Your task to perform on an android device: allow notifications from all sites in the chrome app Image 0: 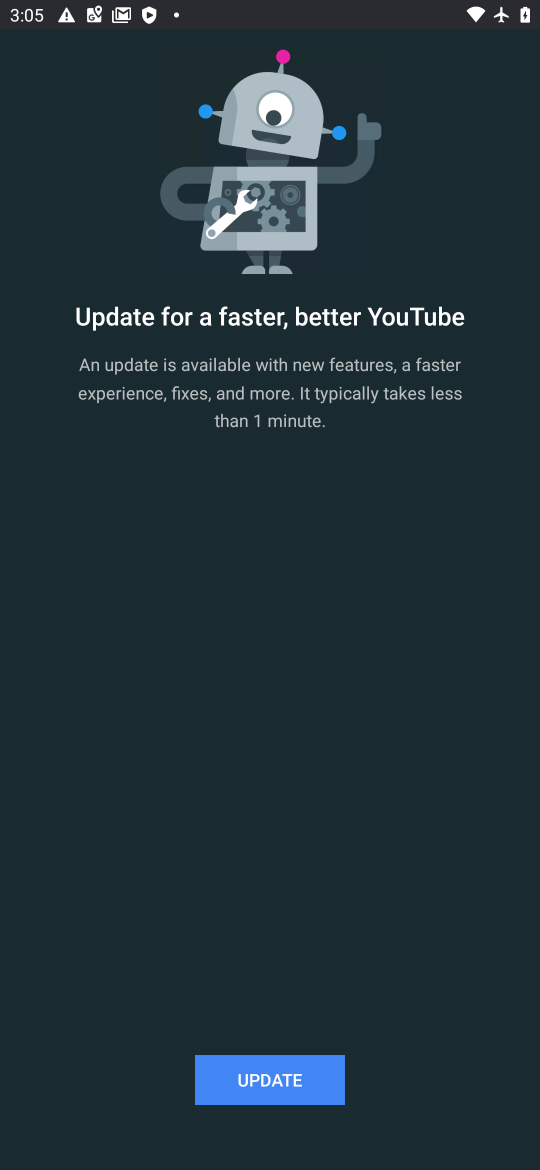
Step 0: press back button
Your task to perform on an android device: allow notifications from all sites in the chrome app Image 1: 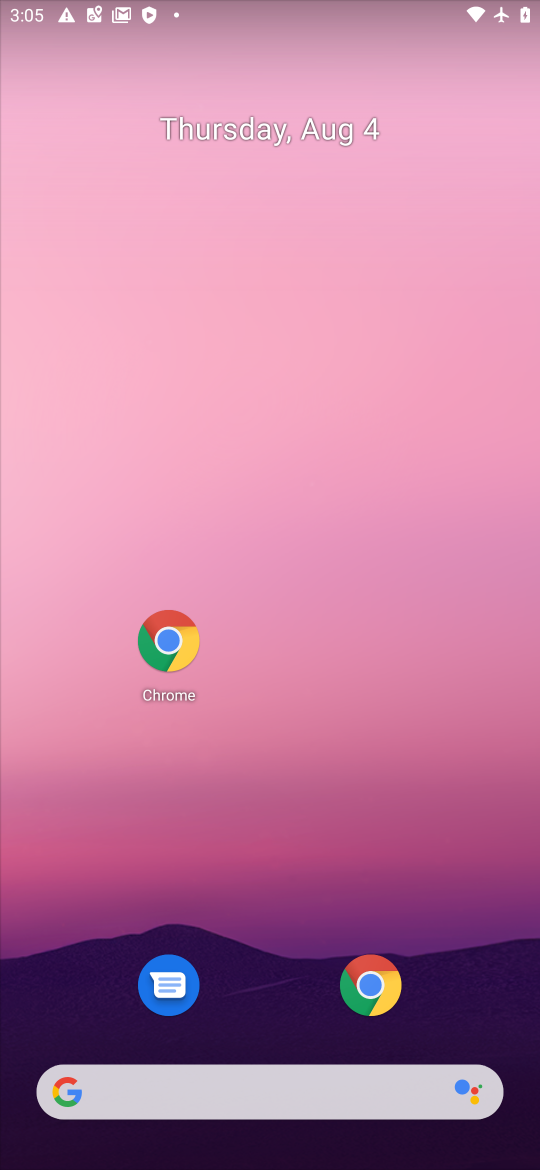
Step 1: drag from (245, 849) to (118, 470)
Your task to perform on an android device: allow notifications from all sites in the chrome app Image 2: 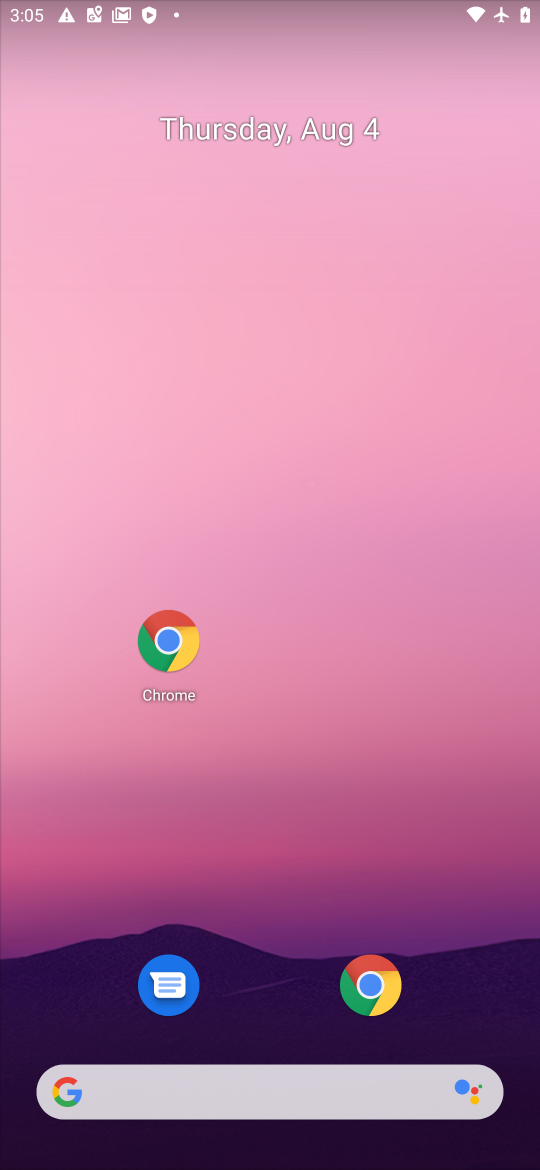
Step 2: drag from (298, 773) to (233, 669)
Your task to perform on an android device: allow notifications from all sites in the chrome app Image 3: 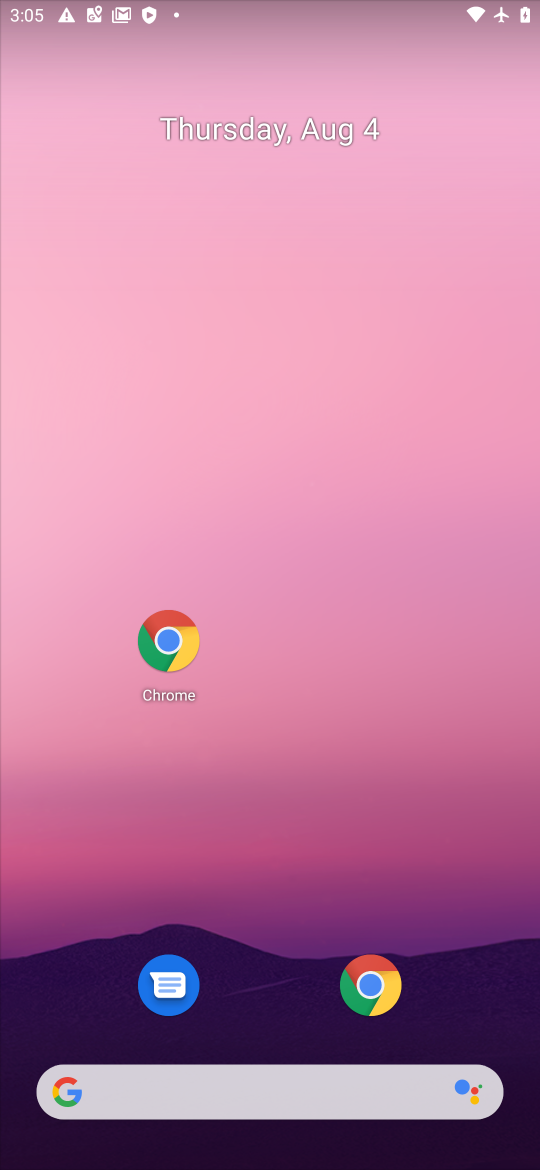
Step 3: drag from (298, 899) to (269, 455)
Your task to perform on an android device: allow notifications from all sites in the chrome app Image 4: 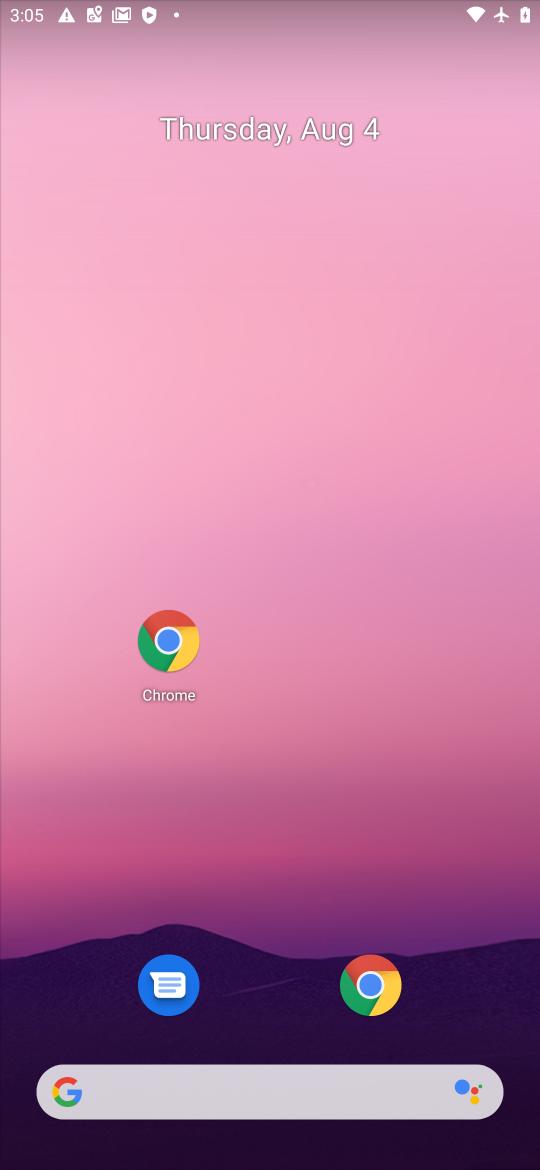
Step 4: drag from (368, 1024) to (159, 423)
Your task to perform on an android device: allow notifications from all sites in the chrome app Image 5: 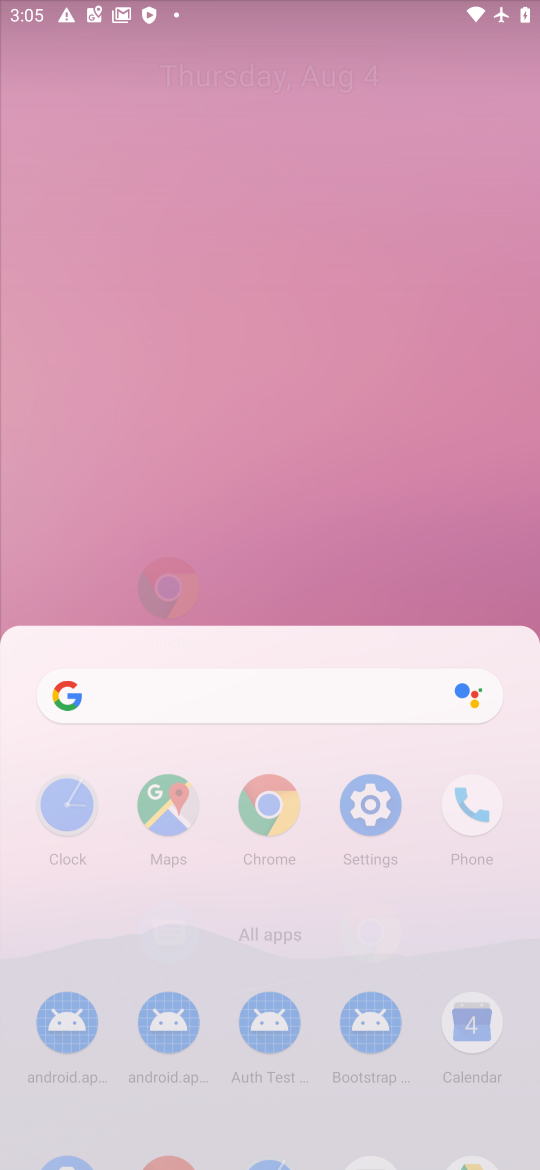
Step 5: drag from (232, 706) to (165, 300)
Your task to perform on an android device: allow notifications from all sites in the chrome app Image 6: 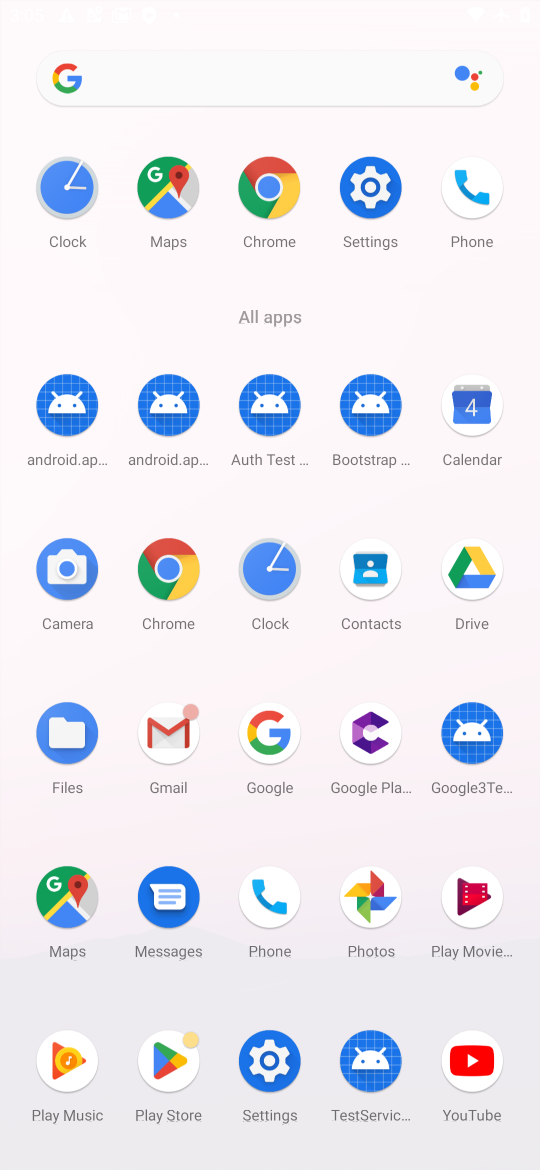
Step 6: drag from (350, 783) to (252, 199)
Your task to perform on an android device: allow notifications from all sites in the chrome app Image 7: 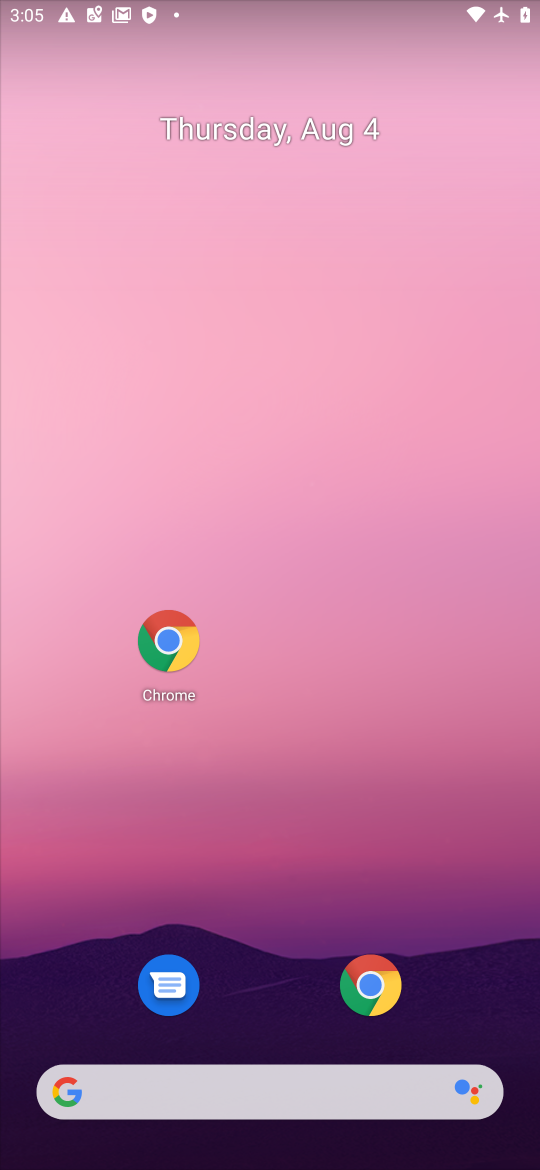
Step 7: click (259, 183)
Your task to perform on an android device: allow notifications from all sites in the chrome app Image 8: 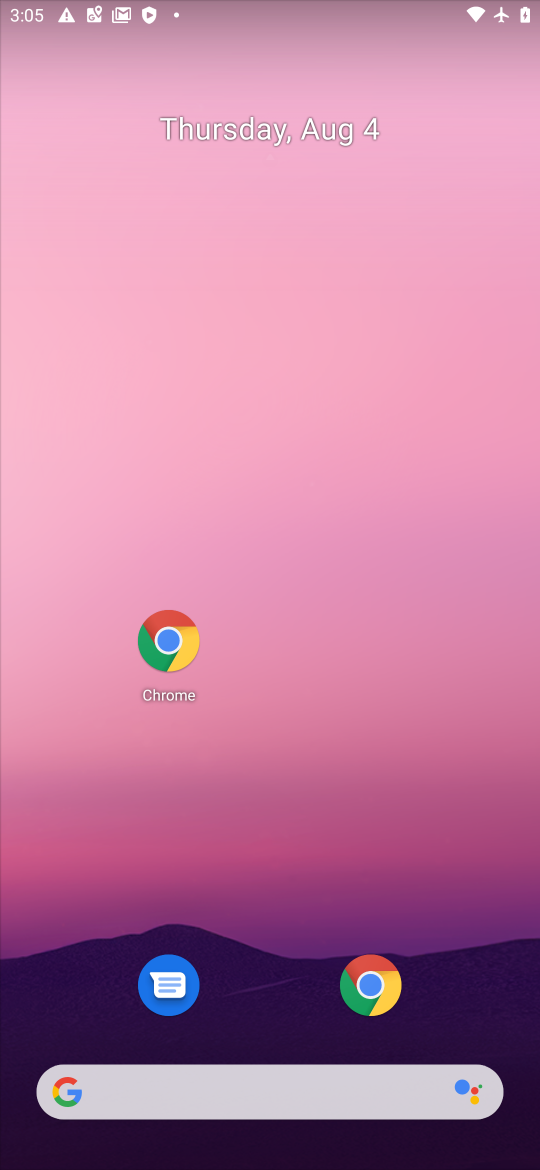
Step 8: drag from (364, 718) to (465, 278)
Your task to perform on an android device: allow notifications from all sites in the chrome app Image 9: 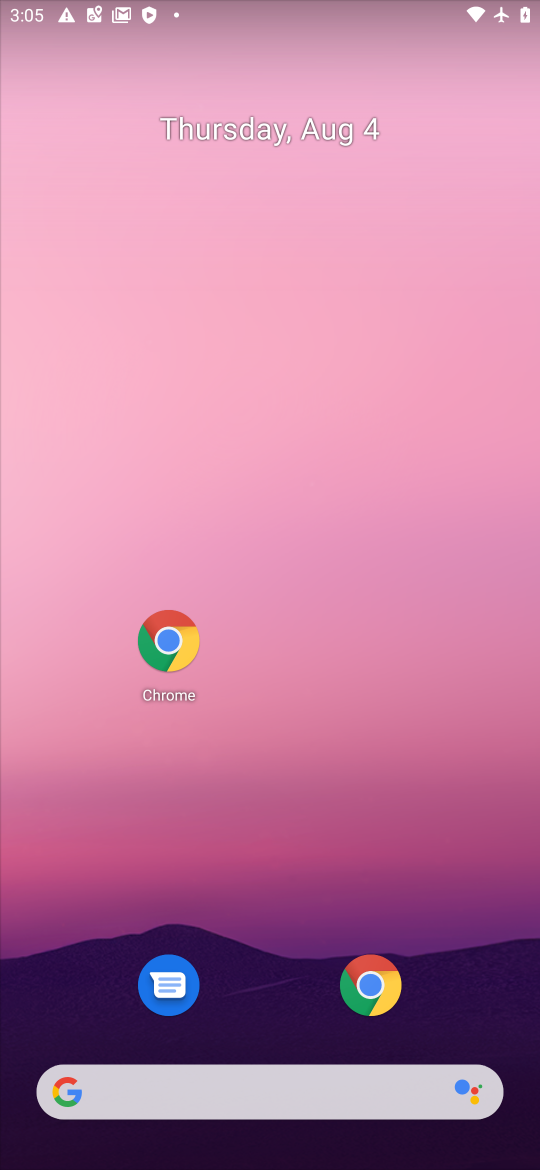
Step 9: drag from (204, 449) to (155, 289)
Your task to perform on an android device: allow notifications from all sites in the chrome app Image 10: 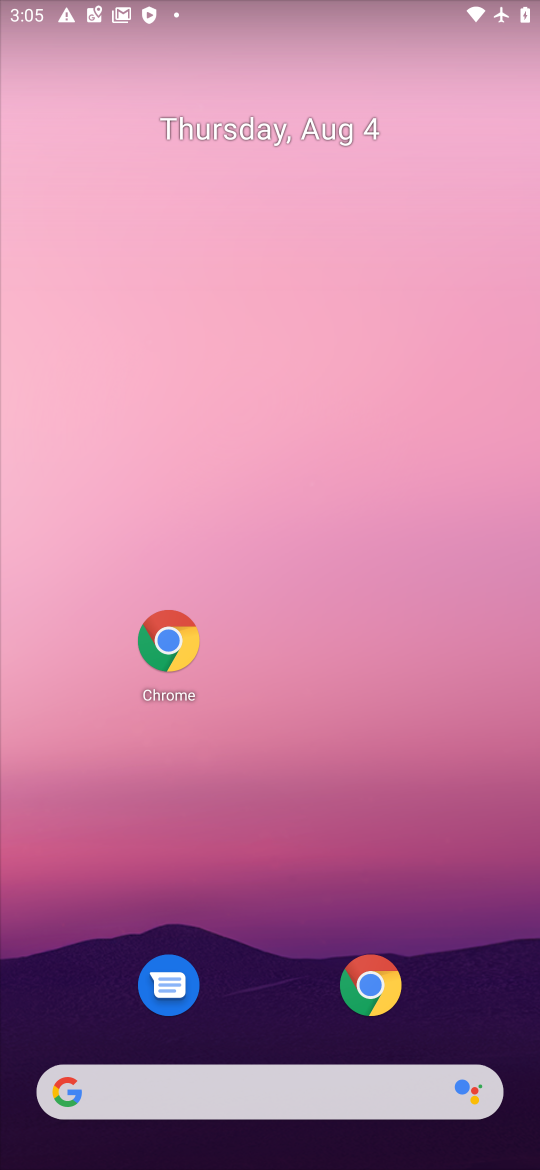
Step 10: drag from (263, 961) to (150, 495)
Your task to perform on an android device: allow notifications from all sites in the chrome app Image 11: 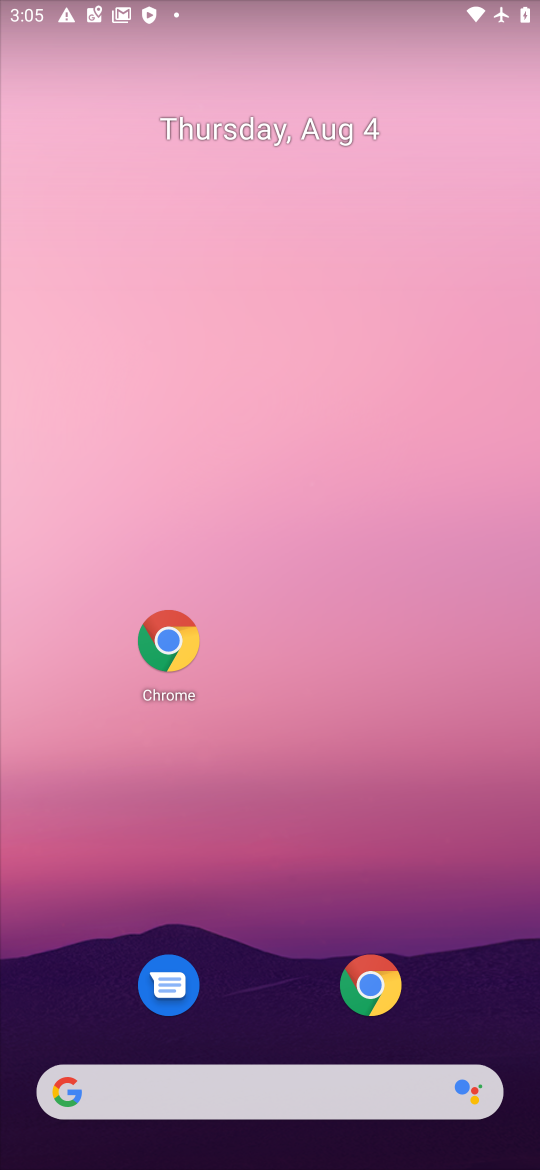
Step 11: drag from (295, 1101) to (191, 527)
Your task to perform on an android device: allow notifications from all sites in the chrome app Image 12: 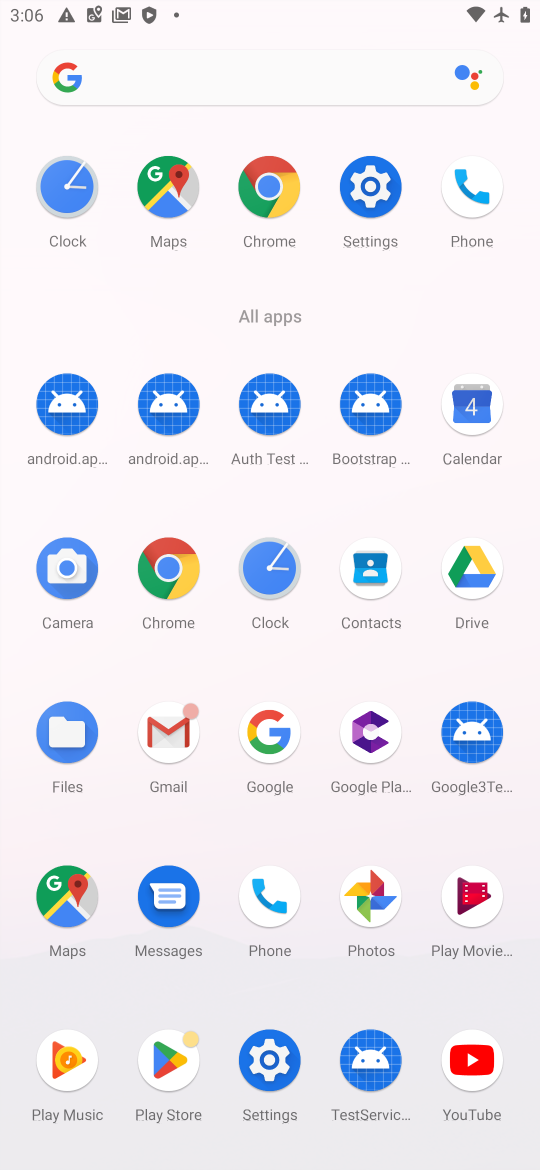
Step 12: click (271, 172)
Your task to perform on an android device: allow notifications from all sites in the chrome app Image 13: 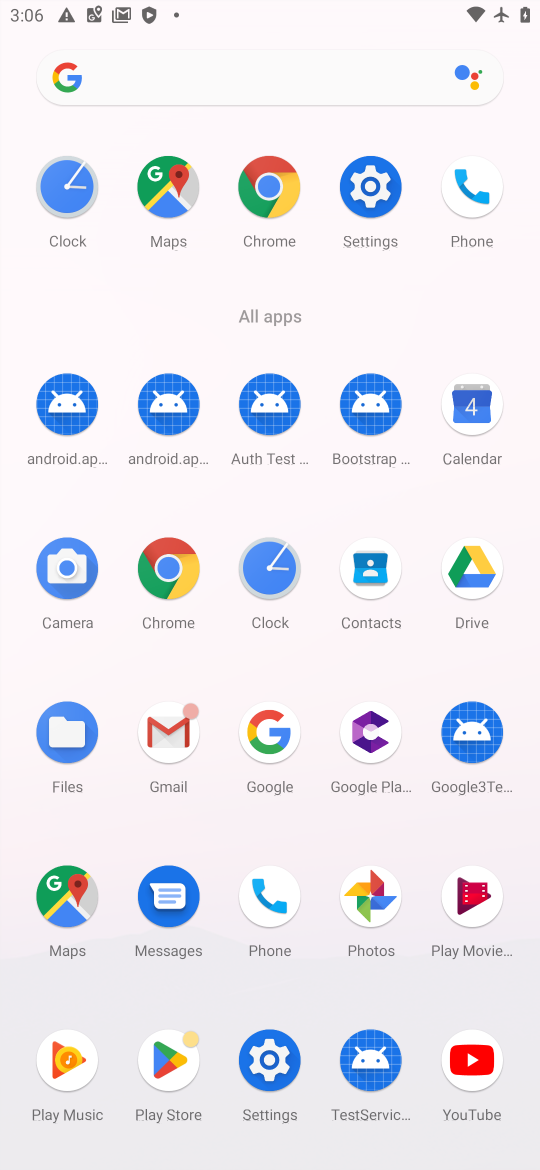
Step 13: click (271, 178)
Your task to perform on an android device: allow notifications from all sites in the chrome app Image 14: 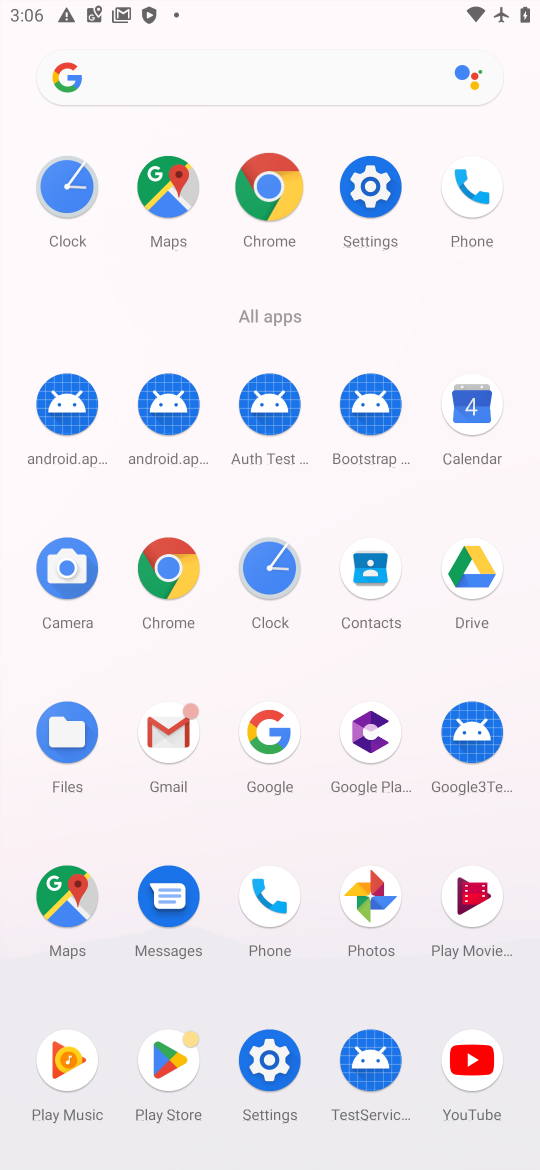
Step 14: click (271, 178)
Your task to perform on an android device: allow notifications from all sites in the chrome app Image 15: 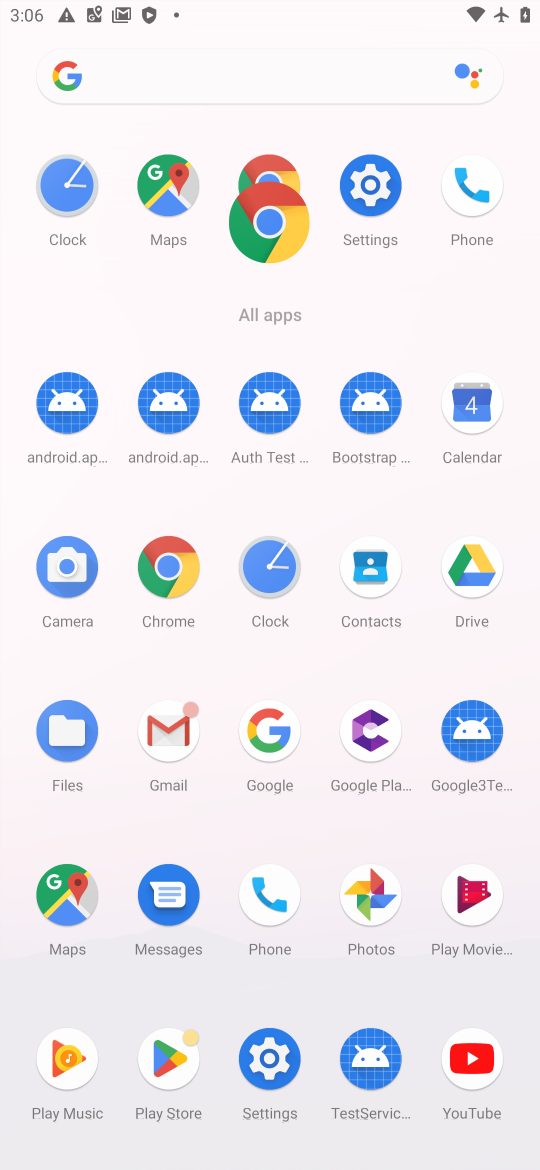
Step 15: click (269, 179)
Your task to perform on an android device: allow notifications from all sites in the chrome app Image 16: 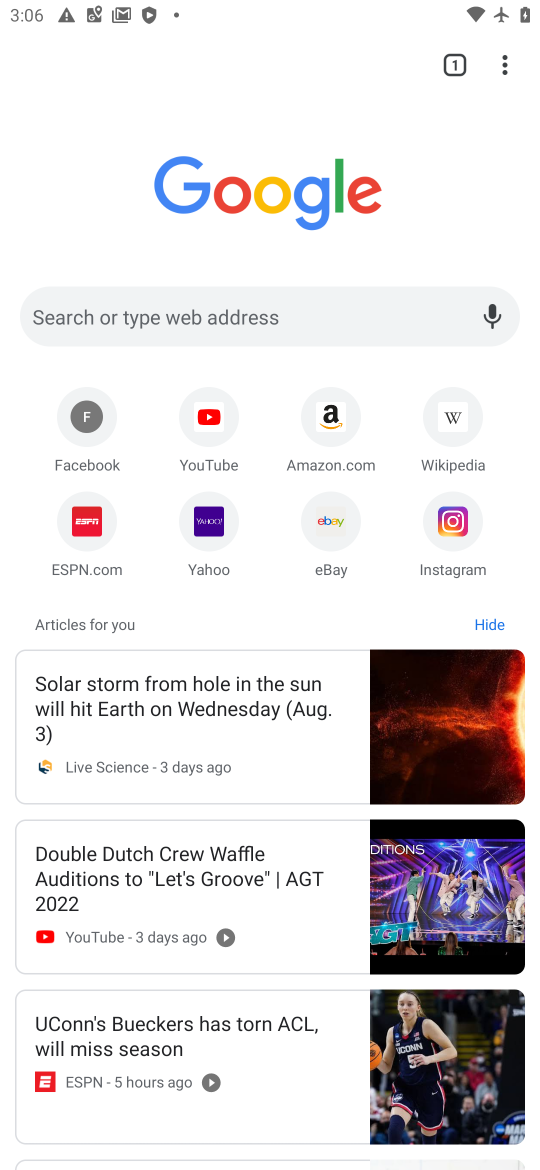
Step 16: click (265, 190)
Your task to perform on an android device: allow notifications from all sites in the chrome app Image 17: 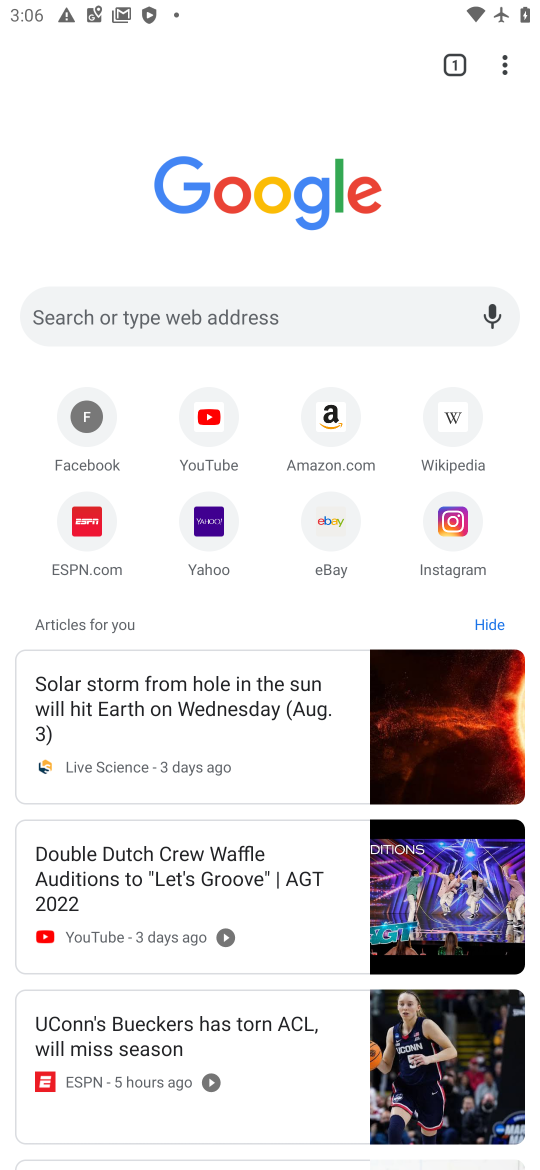
Step 17: drag from (503, 55) to (453, 207)
Your task to perform on an android device: allow notifications from all sites in the chrome app Image 18: 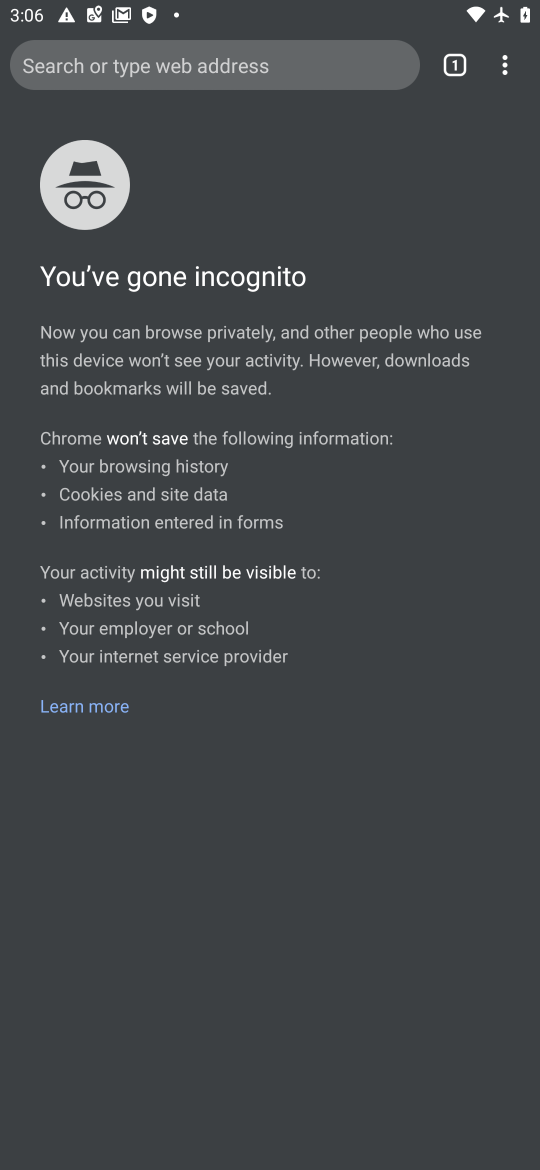
Step 18: click (275, 543)
Your task to perform on an android device: allow notifications from all sites in the chrome app Image 19: 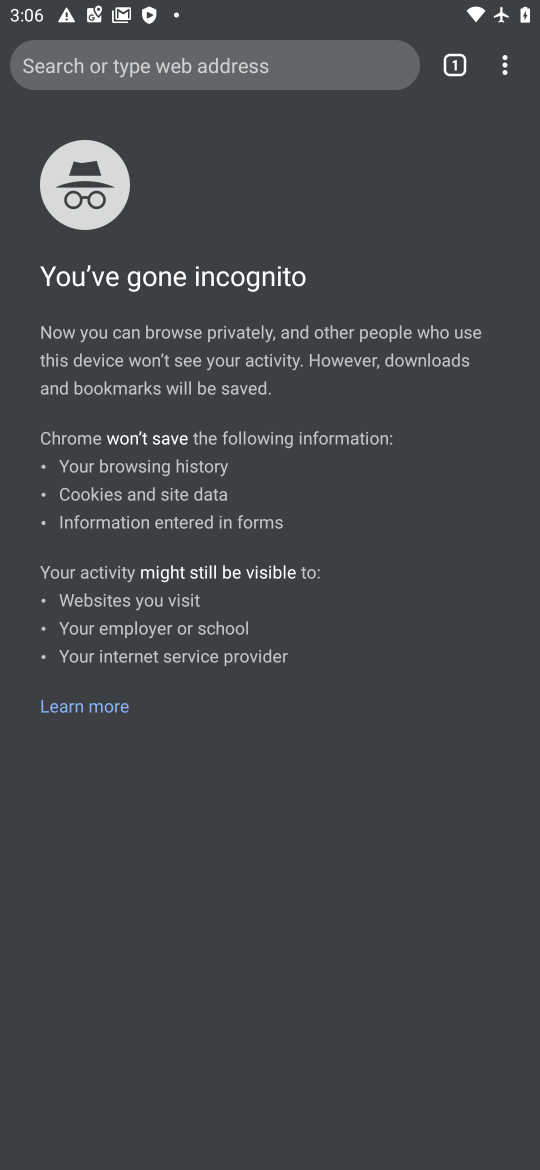
Step 19: drag from (505, 64) to (269, 483)
Your task to perform on an android device: allow notifications from all sites in the chrome app Image 20: 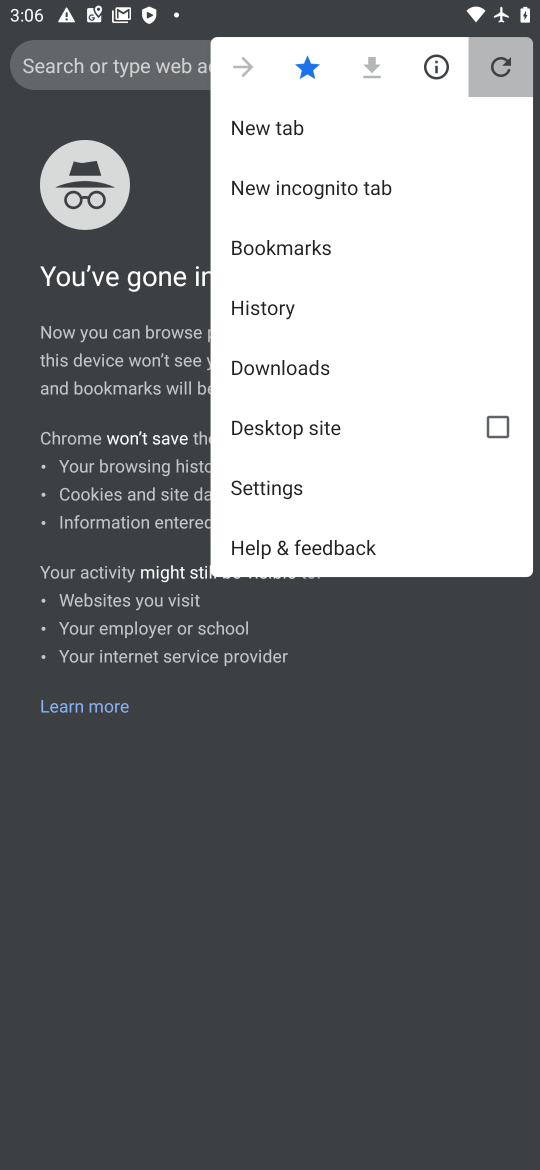
Step 20: click (264, 488)
Your task to perform on an android device: allow notifications from all sites in the chrome app Image 21: 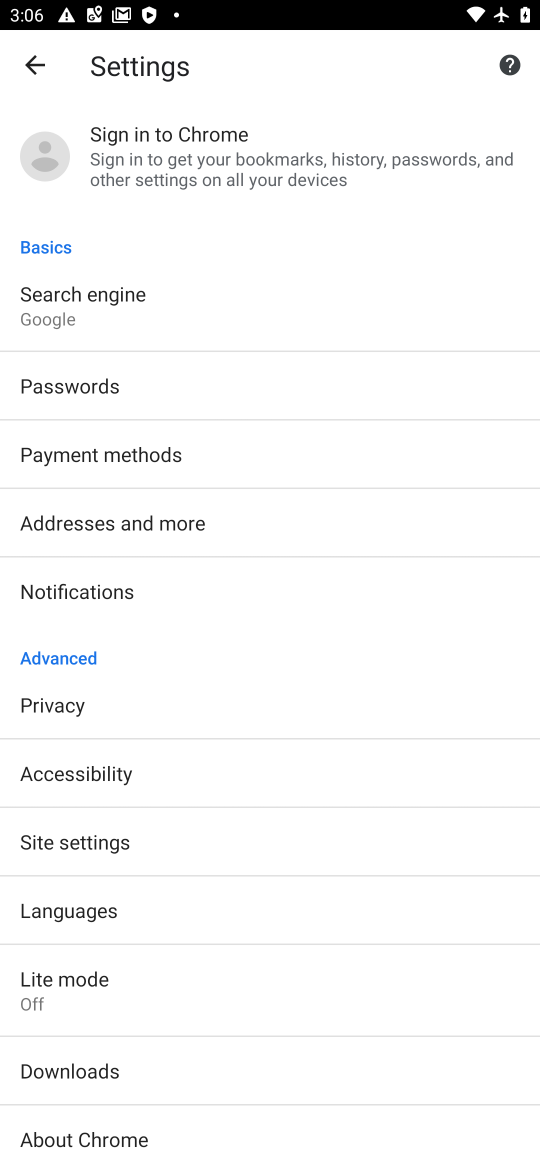
Step 21: drag from (127, 865) to (110, 417)
Your task to perform on an android device: allow notifications from all sites in the chrome app Image 22: 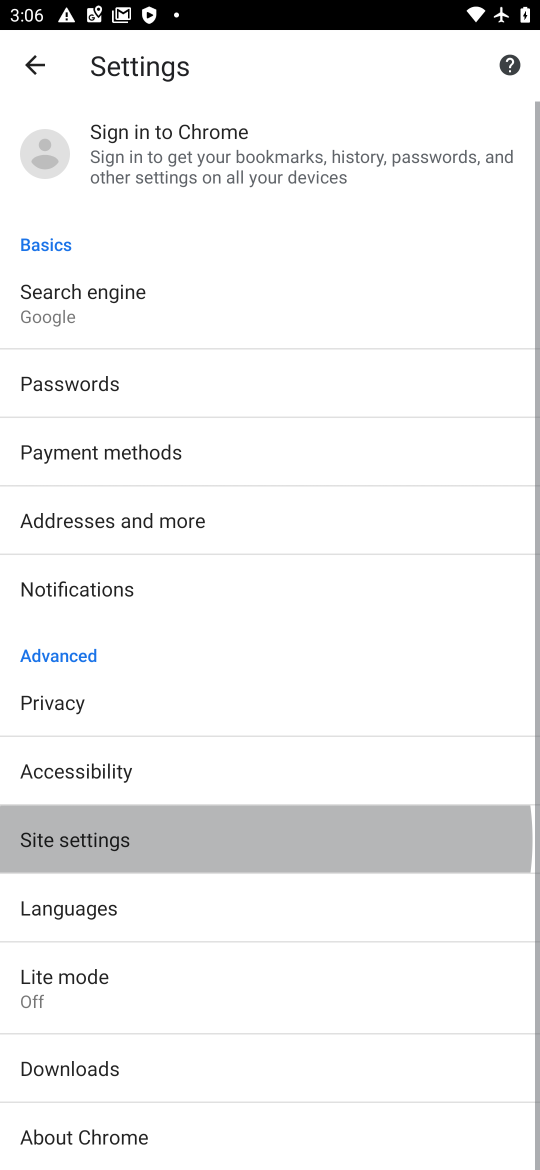
Step 22: drag from (188, 829) to (190, 598)
Your task to perform on an android device: allow notifications from all sites in the chrome app Image 23: 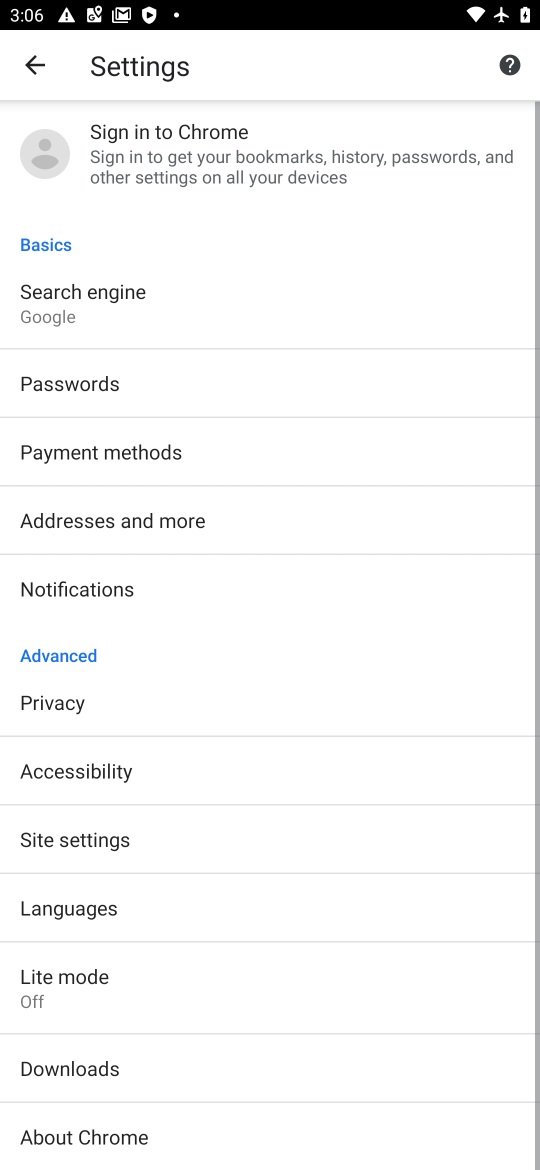
Step 23: drag from (230, 866) to (178, 475)
Your task to perform on an android device: allow notifications from all sites in the chrome app Image 24: 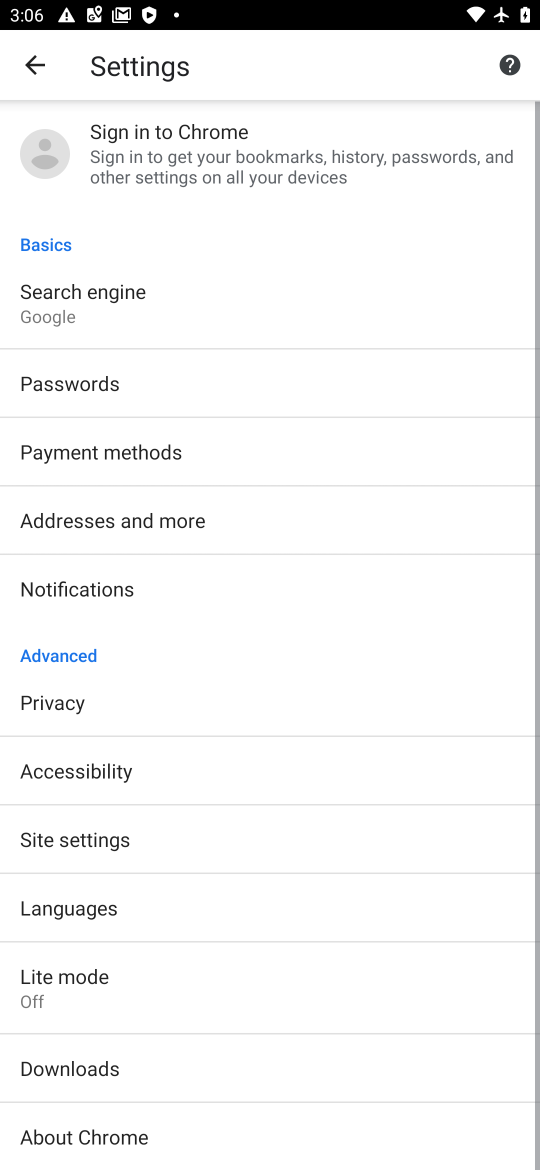
Step 24: drag from (238, 968) to (260, 657)
Your task to perform on an android device: allow notifications from all sites in the chrome app Image 25: 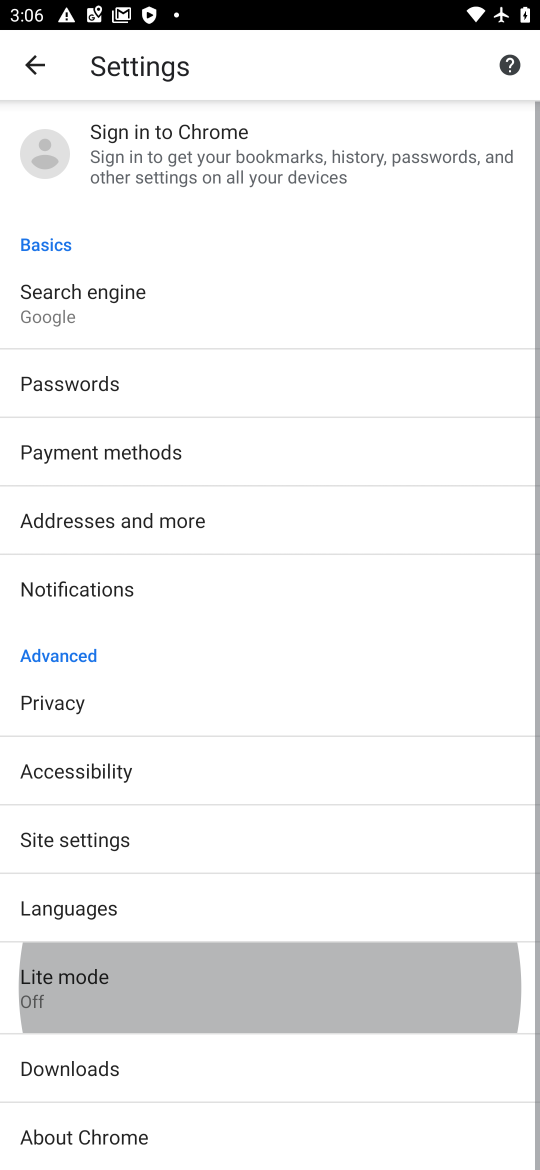
Step 25: drag from (273, 954) to (250, 655)
Your task to perform on an android device: allow notifications from all sites in the chrome app Image 26: 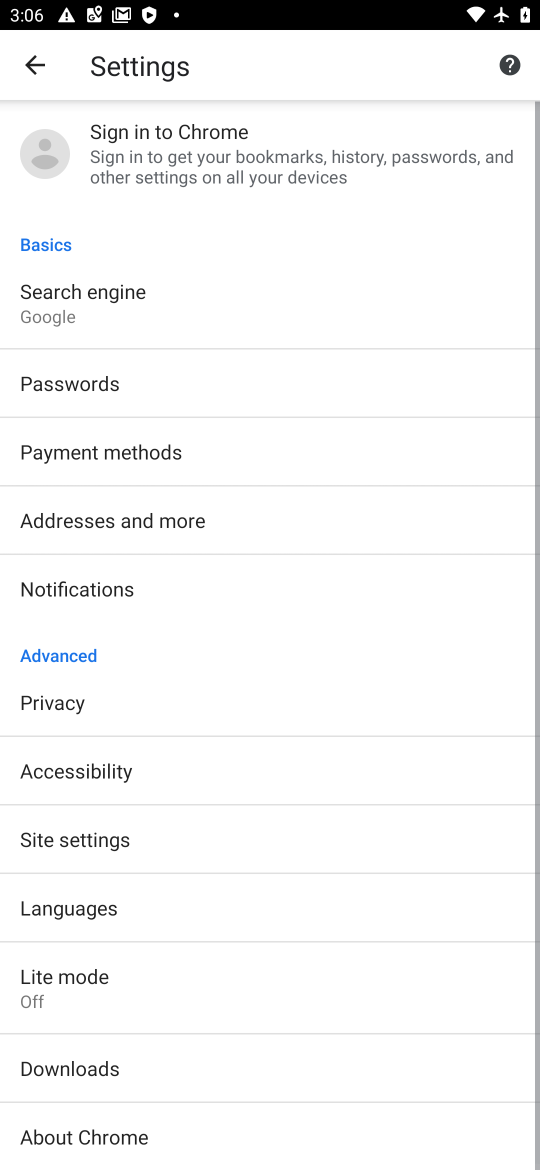
Step 26: drag from (233, 950) to (165, 545)
Your task to perform on an android device: allow notifications from all sites in the chrome app Image 27: 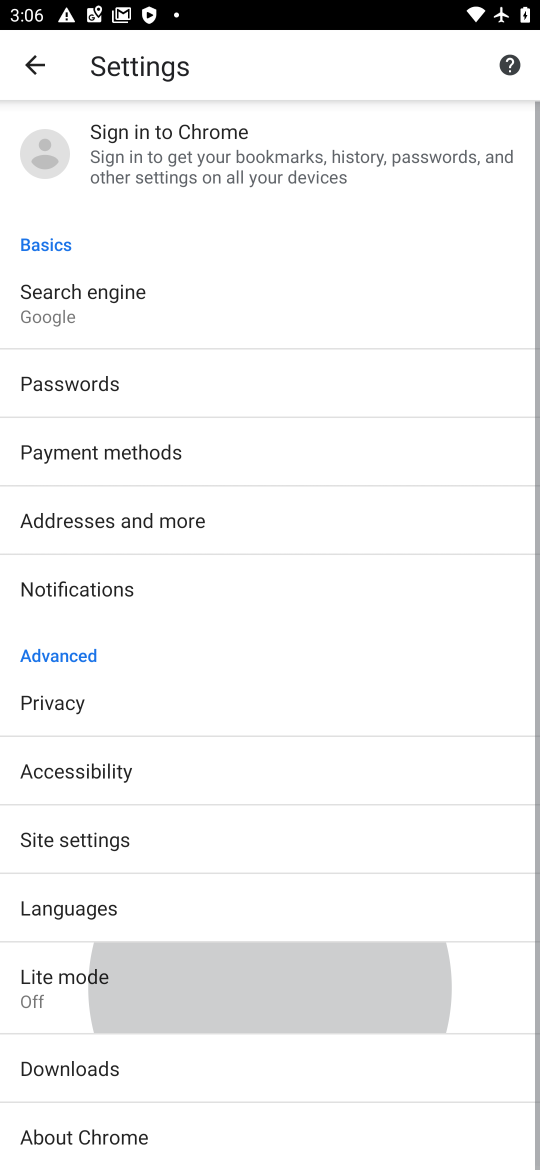
Step 27: drag from (164, 1032) to (97, 558)
Your task to perform on an android device: allow notifications from all sites in the chrome app Image 28: 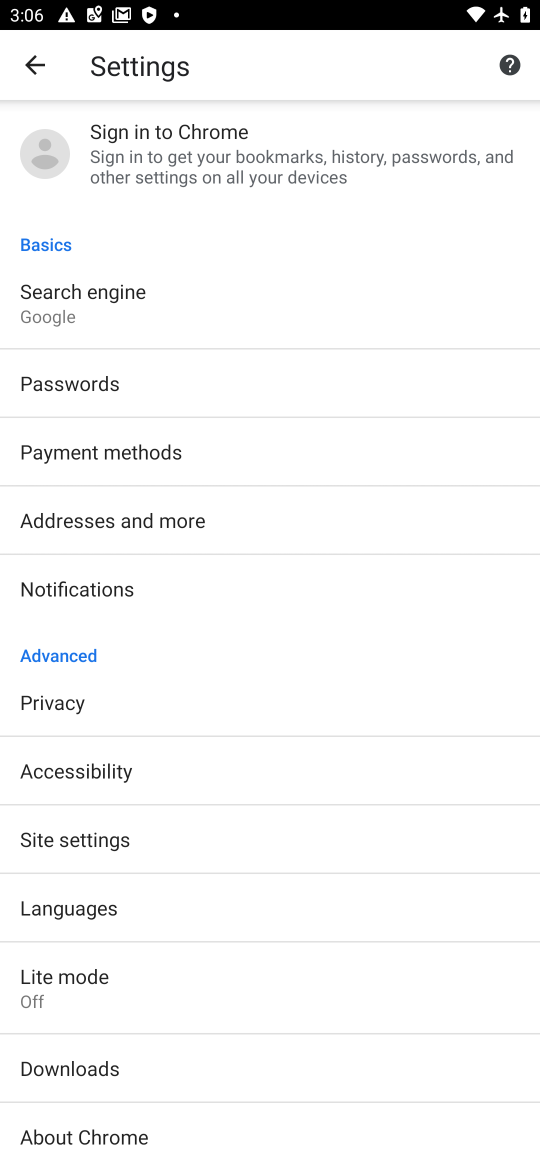
Step 28: click (68, 590)
Your task to perform on an android device: allow notifications from all sites in the chrome app Image 29: 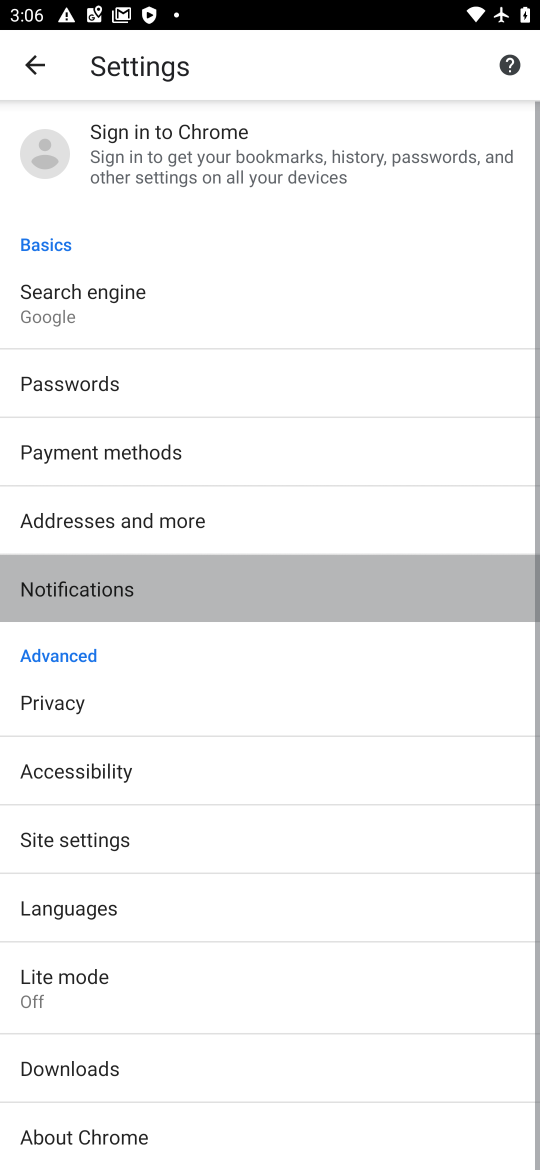
Step 29: click (68, 590)
Your task to perform on an android device: allow notifications from all sites in the chrome app Image 30: 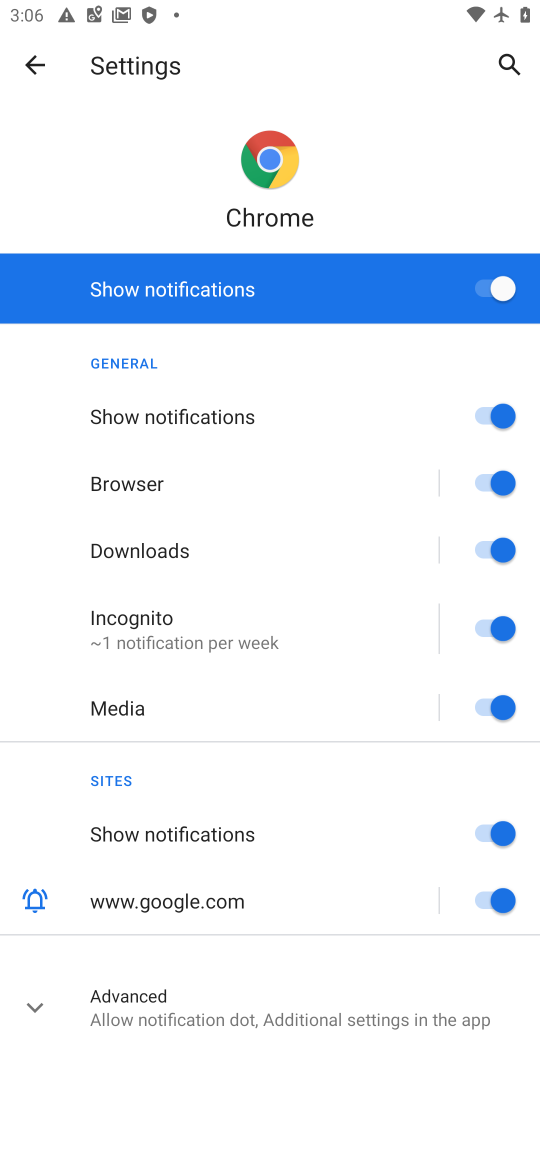
Step 30: task complete